Your task to perform on an android device: change notifications settings Image 0: 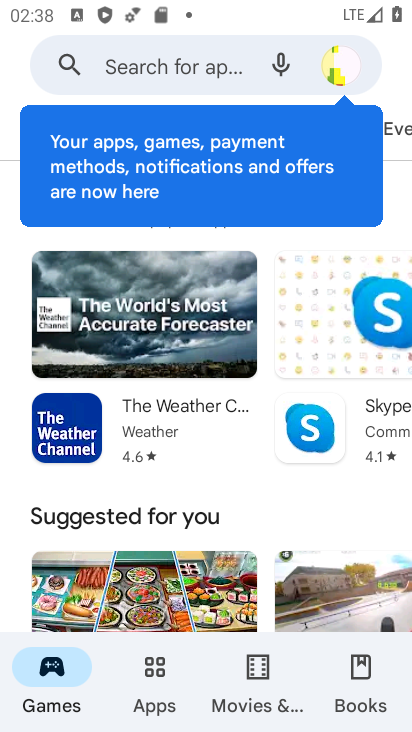
Step 0: press home button
Your task to perform on an android device: change notifications settings Image 1: 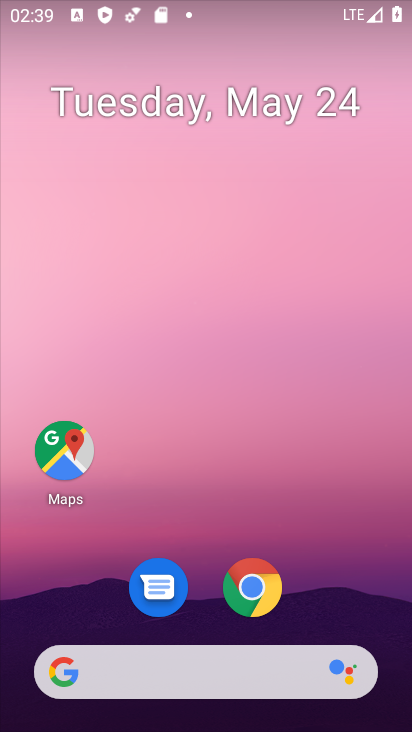
Step 1: drag from (207, 717) to (207, 62)
Your task to perform on an android device: change notifications settings Image 2: 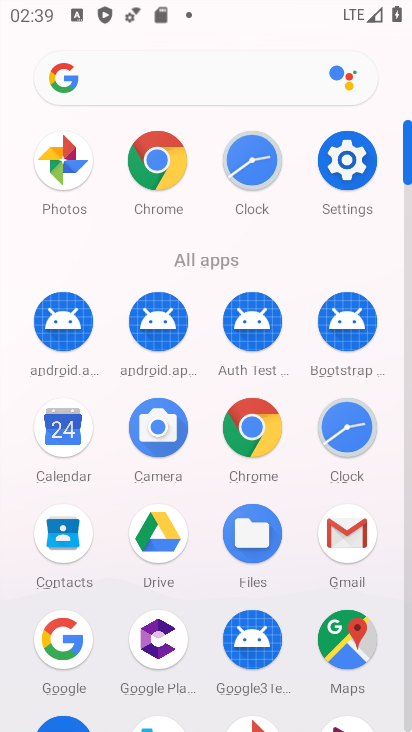
Step 2: click (340, 168)
Your task to perform on an android device: change notifications settings Image 3: 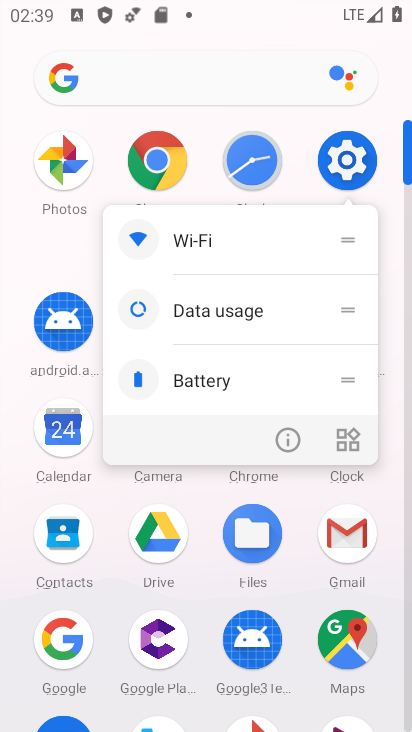
Step 3: click (353, 183)
Your task to perform on an android device: change notifications settings Image 4: 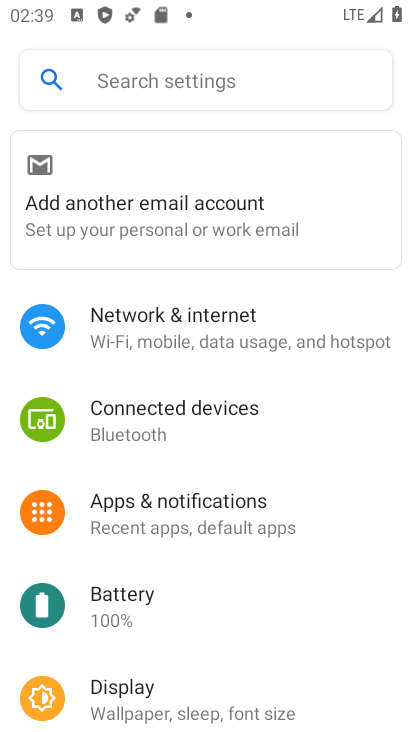
Step 4: click (237, 525)
Your task to perform on an android device: change notifications settings Image 5: 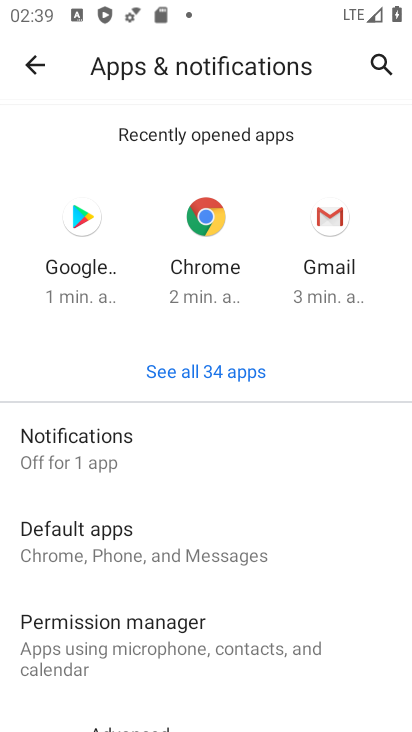
Step 5: click (127, 458)
Your task to perform on an android device: change notifications settings Image 6: 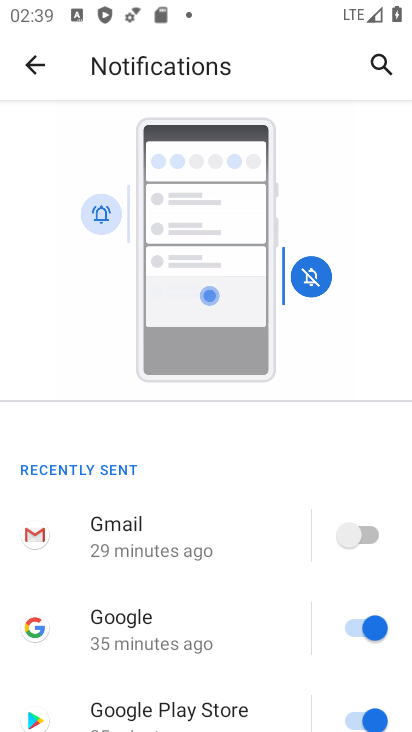
Step 6: click (373, 536)
Your task to perform on an android device: change notifications settings Image 7: 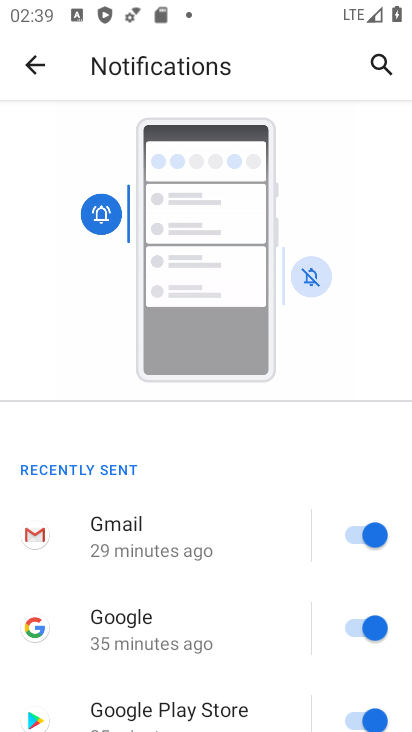
Step 7: task complete